Your task to perform on an android device: Go to internet settings Image 0: 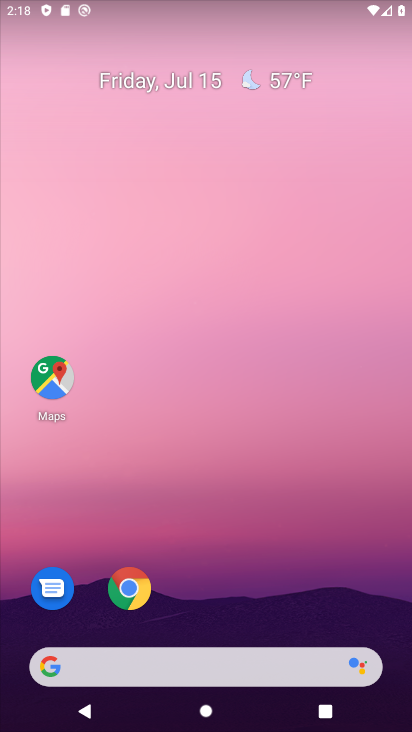
Step 0: click (211, 145)
Your task to perform on an android device: Go to internet settings Image 1: 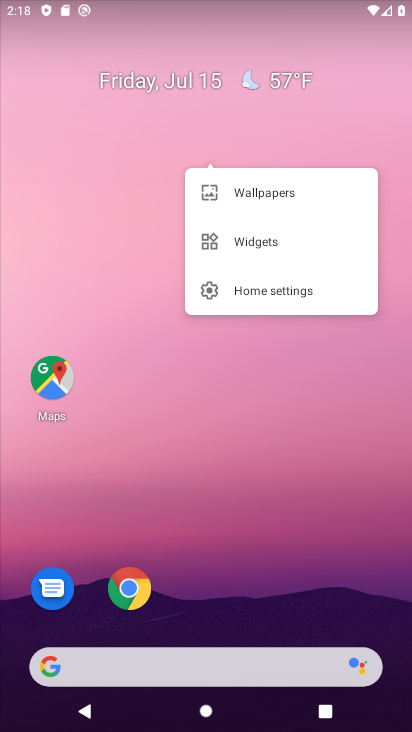
Step 1: drag from (187, 600) to (148, 172)
Your task to perform on an android device: Go to internet settings Image 2: 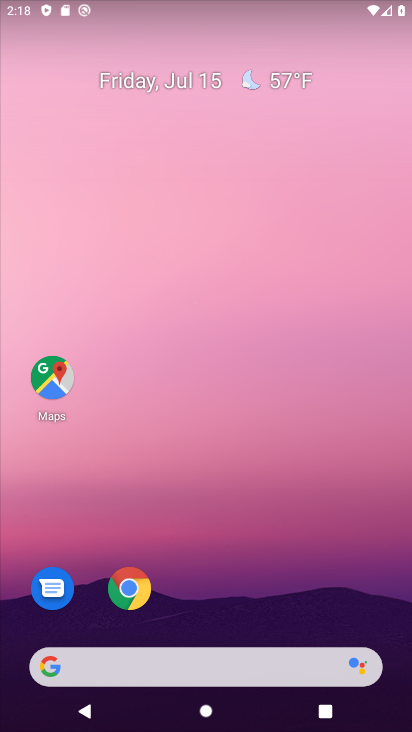
Step 2: drag from (207, 497) to (180, 58)
Your task to perform on an android device: Go to internet settings Image 3: 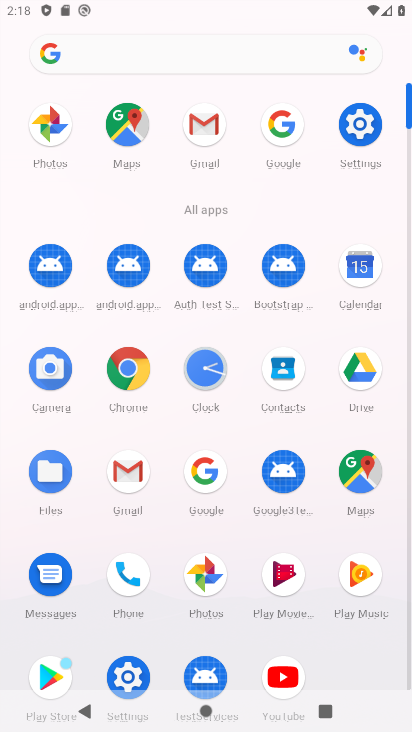
Step 3: click (362, 123)
Your task to perform on an android device: Go to internet settings Image 4: 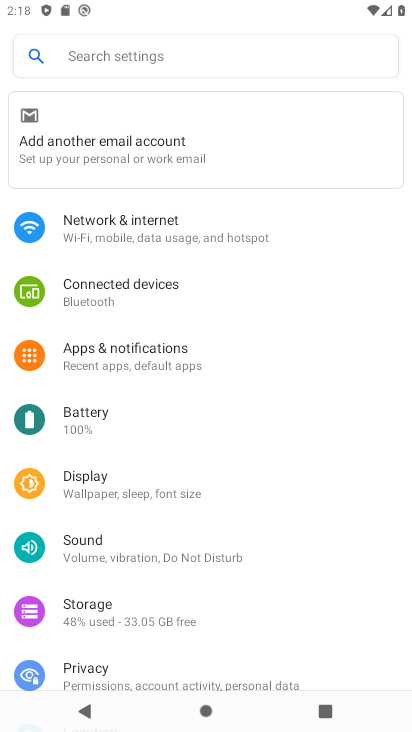
Step 4: click (137, 214)
Your task to perform on an android device: Go to internet settings Image 5: 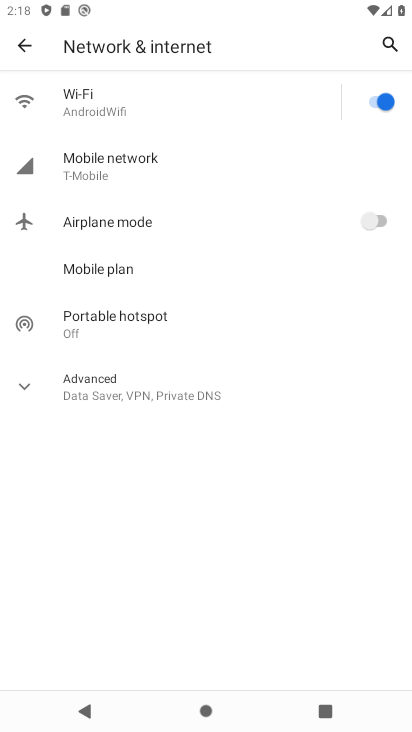
Step 5: click (118, 158)
Your task to perform on an android device: Go to internet settings Image 6: 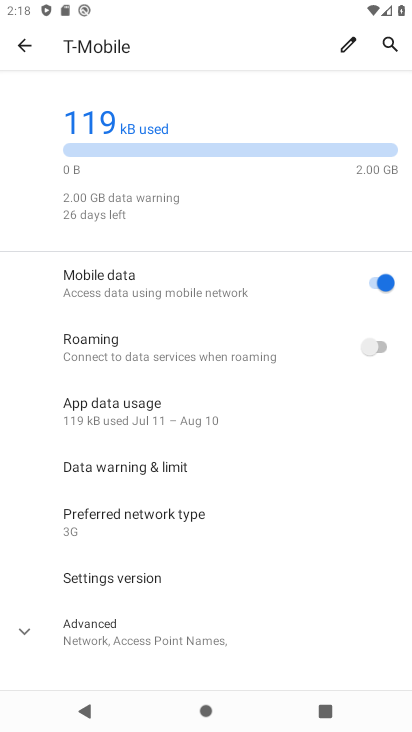
Step 6: task complete